Your task to perform on an android device: change notification settings in the gmail app Image 0: 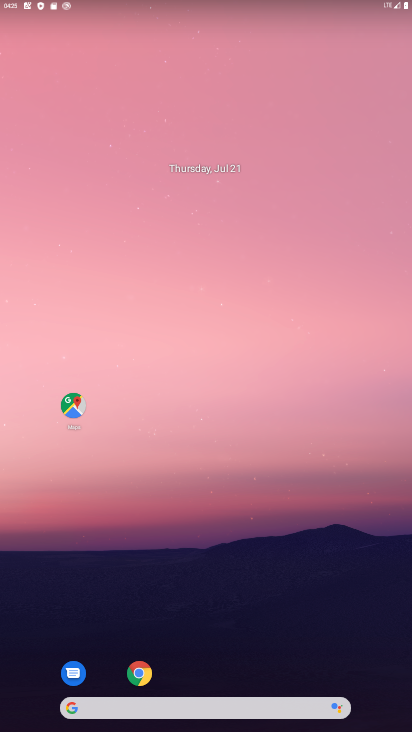
Step 0: drag from (237, 624) to (145, 164)
Your task to perform on an android device: change notification settings in the gmail app Image 1: 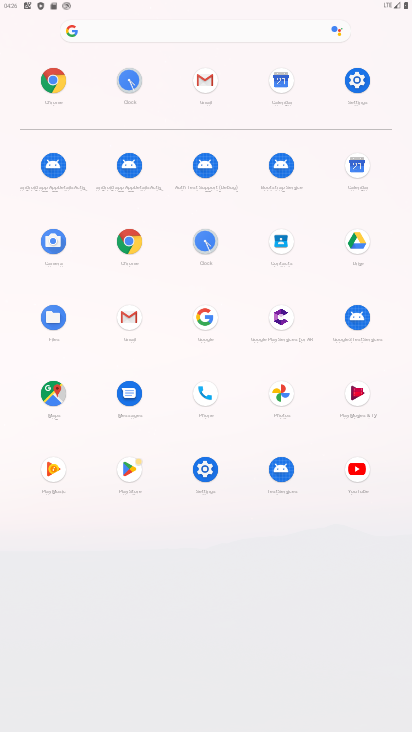
Step 1: click (205, 67)
Your task to perform on an android device: change notification settings in the gmail app Image 2: 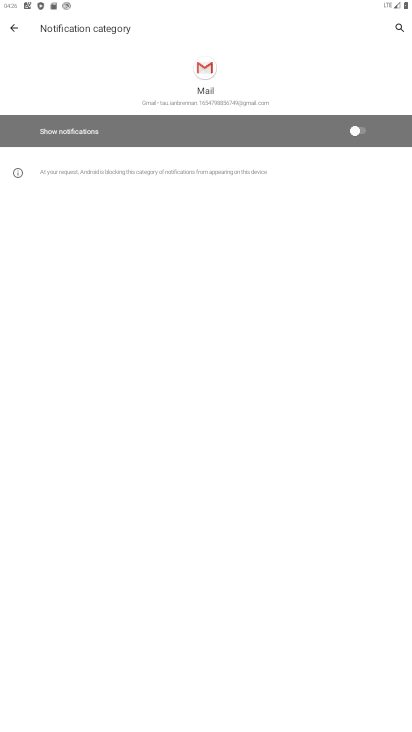
Step 2: click (334, 137)
Your task to perform on an android device: change notification settings in the gmail app Image 3: 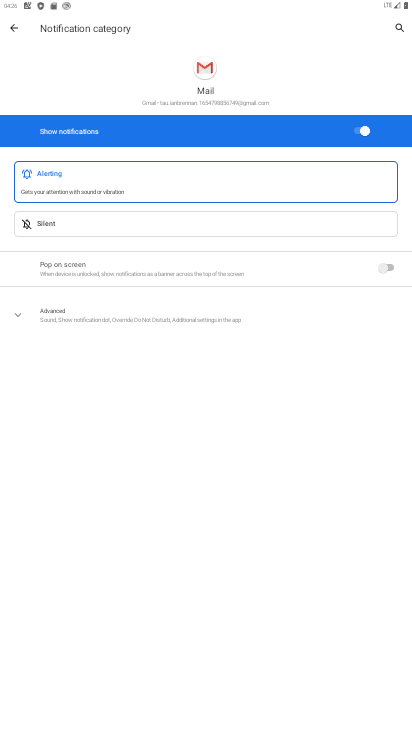
Step 3: task complete